Your task to perform on an android device: What's the weather going to be this weekend? Image 0: 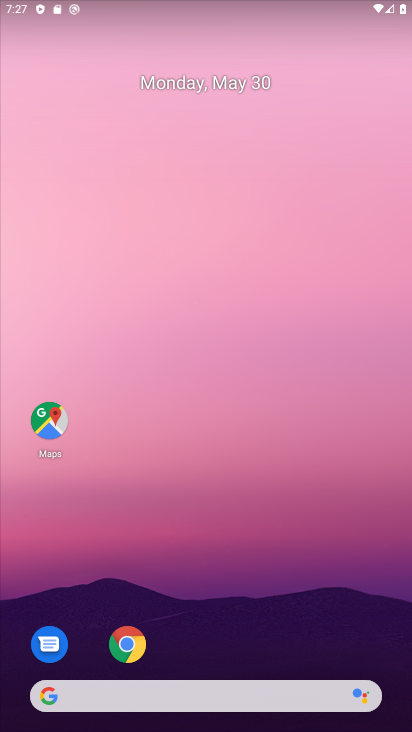
Step 0: drag from (249, 624) to (162, 174)
Your task to perform on an android device: What's the weather going to be this weekend? Image 1: 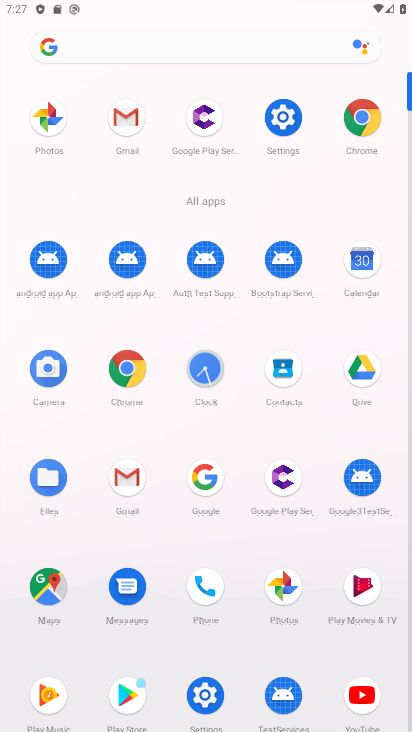
Step 1: click (202, 477)
Your task to perform on an android device: What's the weather going to be this weekend? Image 2: 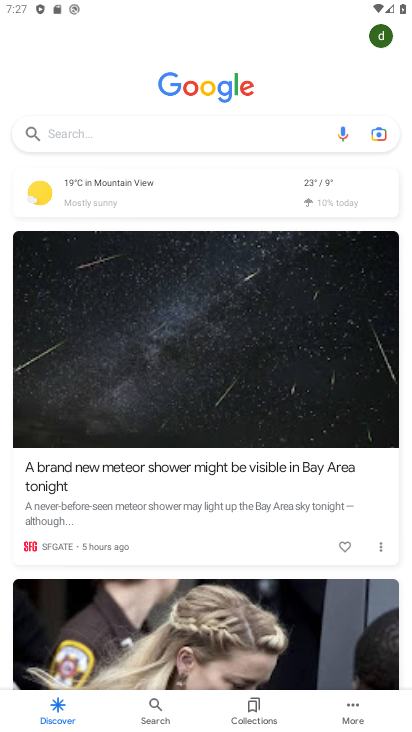
Step 2: click (208, 134)
Your task to perform on an android device: What's the weather going to be this weekend? Image 3: 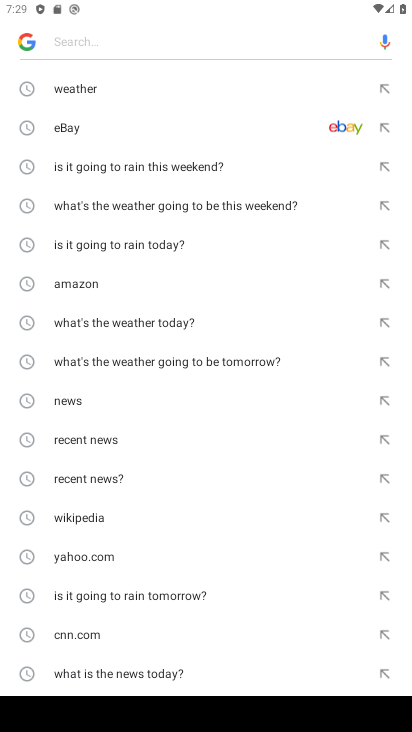
Step 3: type "What's the weather going to be  this weekend"
Your task to perform on an android device: What's the weather going to be this weekend? Image 4: 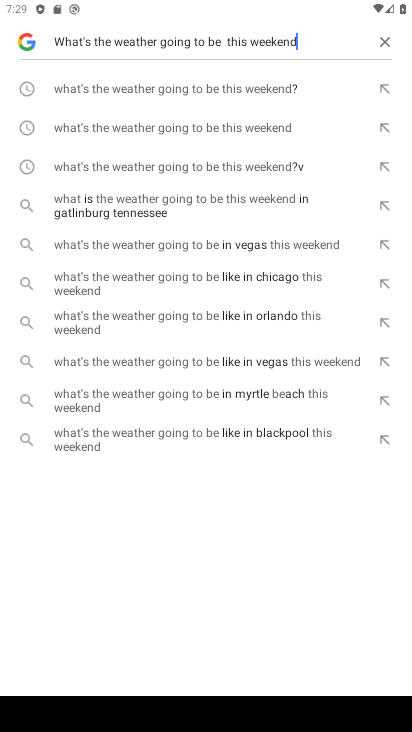
Step 4: click (162, 86)
Your task to perform on an android device: What's the weather going to be this weekend? Image 5: 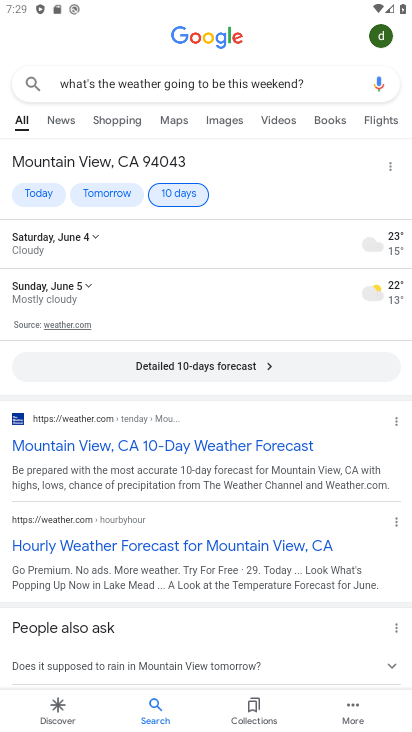
Step 5: task complete